Your task to perform on an android device: Show me productivity apps on the Play Store Image 0: 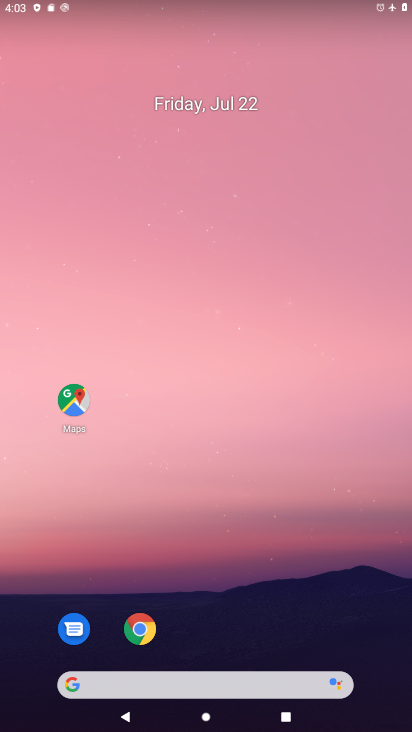
Step 0: drag from (361, 618) to (328, 78)
Your task to perform on an android device: Show me productivity apps on the Play Store Image 1: 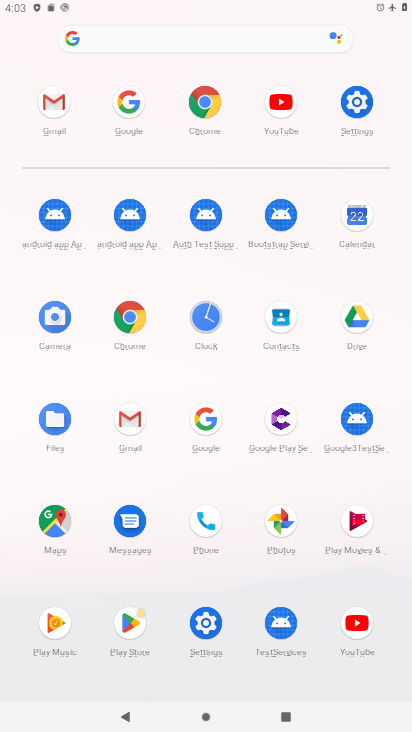
Step 1: drag from (227, 586) to (233, 189)
Your task to perform on an android device: Show me productivity apps on the Play Store Image 2: 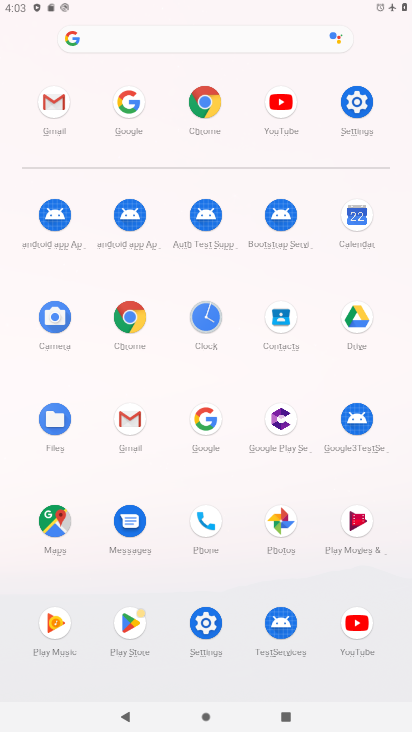
Step 2: click (127, 629)
Your task to perform on an android device: Show me productivity apps on the Play Store Image 3: 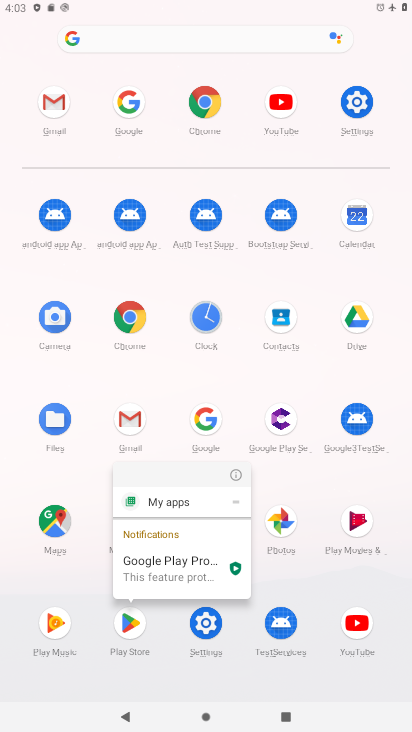
Step 3: click (119, 615)
Your task to perform on an android device: Show me productivity apps on the Play Store Image 4: 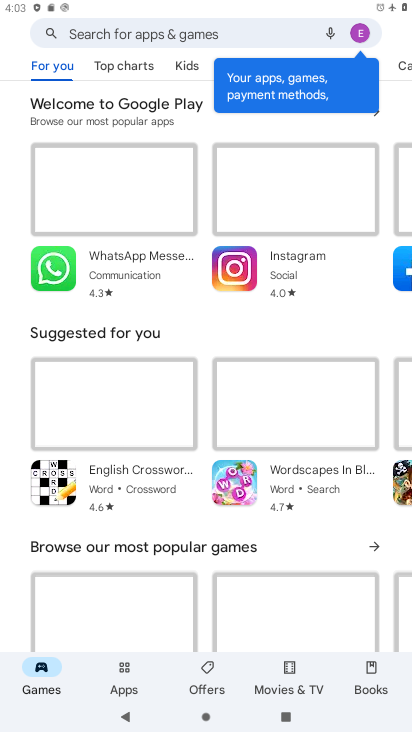
Step 4: click (120, 682)
Your task to perform on an android device: Show me productivity apps on the Play Store Image 5: 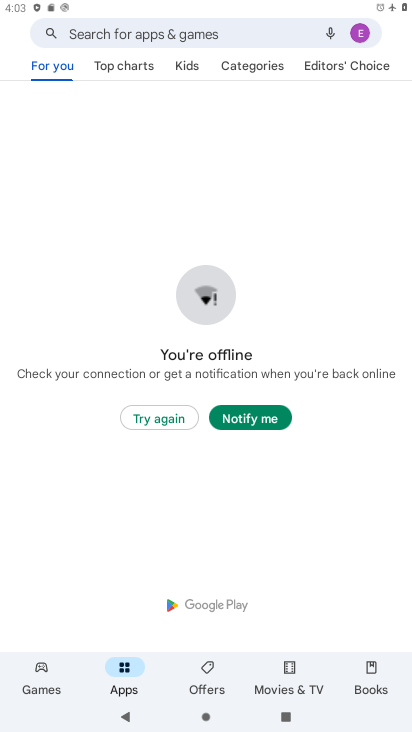
Step 5: task complete